Your task to perform on an android device: Open Google Chrome and open the bookmarks view Image 0: 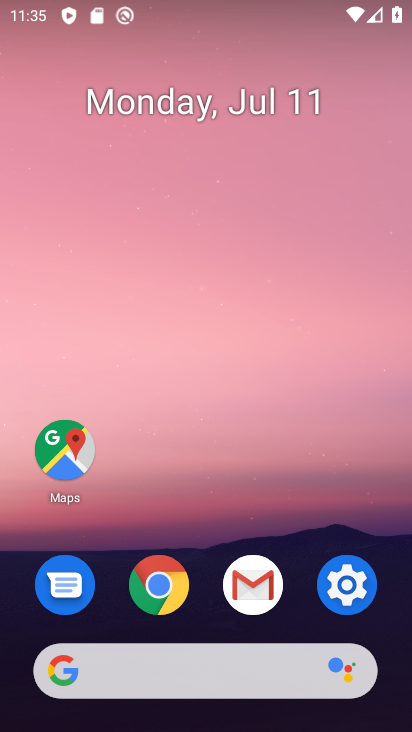
Step 0: click (181, 582)
Your task to perform on an android device: Open Google Chrome and open the bookmarks view Image 1: 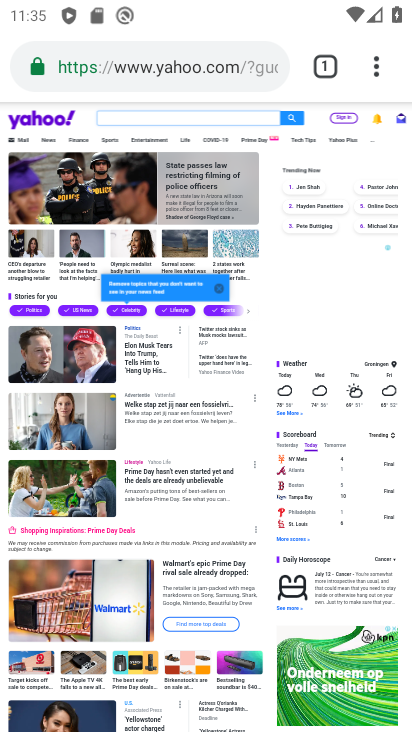
Step 1: click (375, 64)
Your task to perform on an android device: Open Google Chrome and open the bookmarks view Image 2: 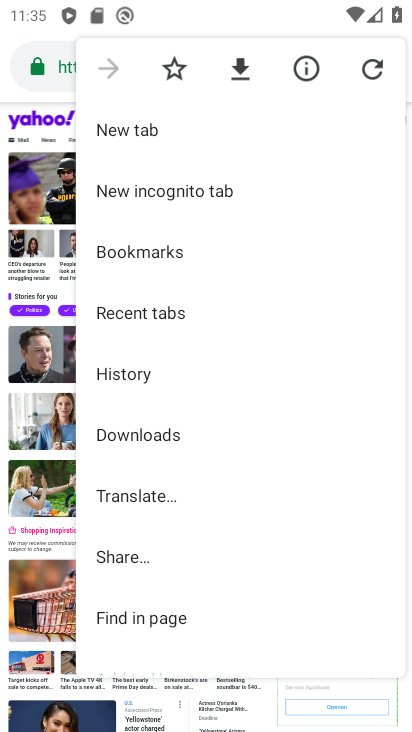
Step 2: drag from (163, 596) to (149, 556)
Your task to perform on an android device: Open Google Chrome and open the bookmarks view Image 3: 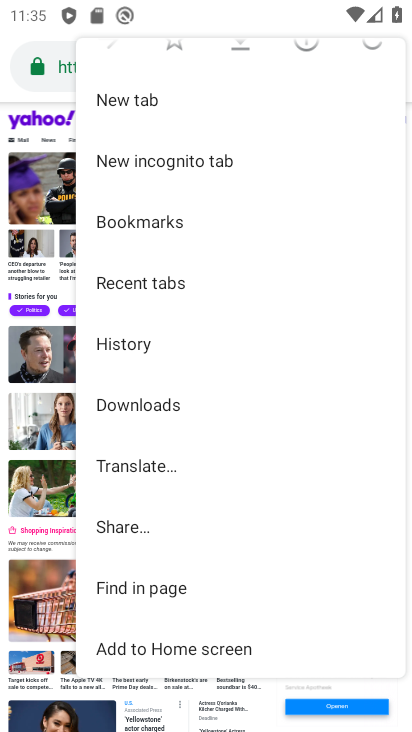
Step 3: click (146, 221)
Your task to perform on an android device: Open Google Chrome and open the bookmarks view Image 4: 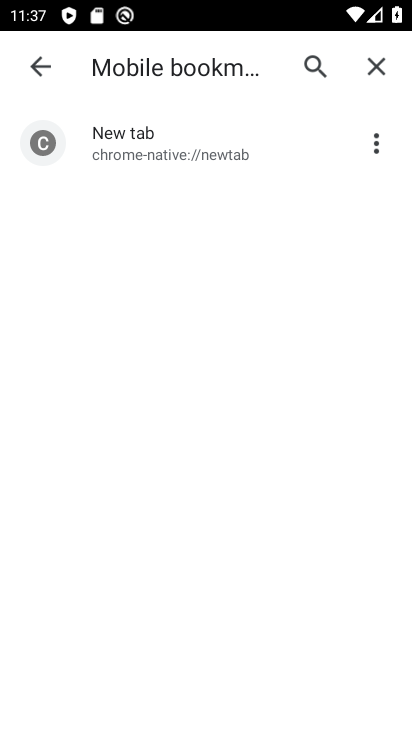
Step 4: task complete